Your task to perform on an android device: What's the weather? Image 0: 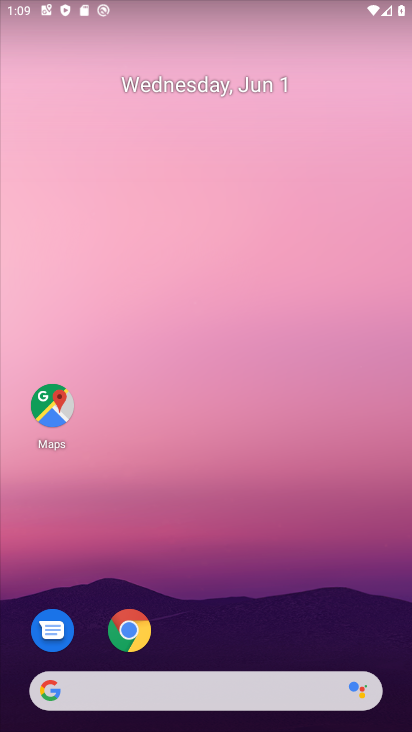
Step 0: press home button
Your task to perform on an android device: What's the weather? Image 1: 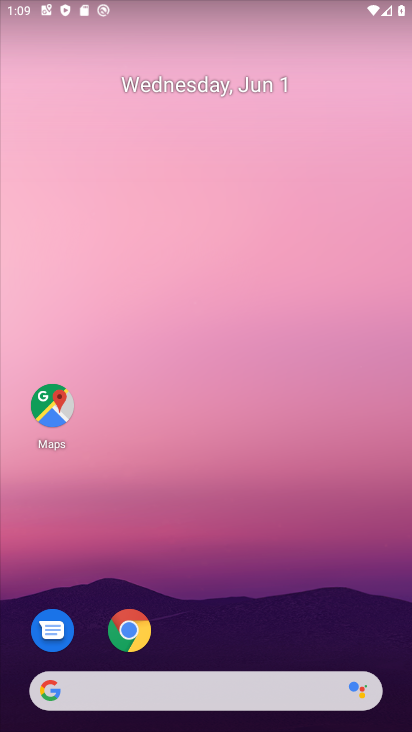
Step 1: click (56, 692)
Your task to perform on an android device: What's the weather? Image 2: 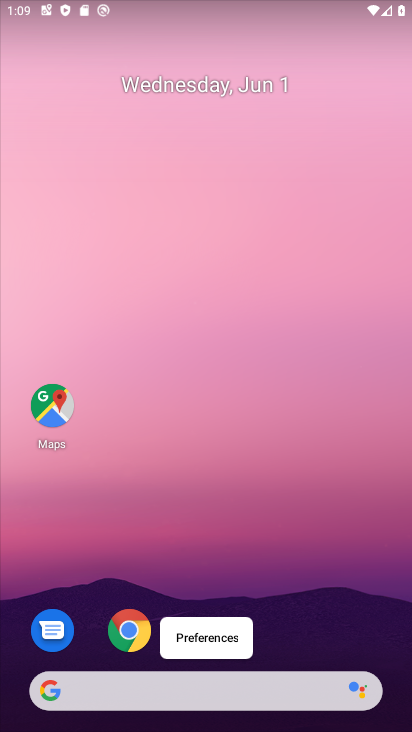
Step 2: click (51, 698)
Your task to perform on an android device: What's the weather? Image 3: 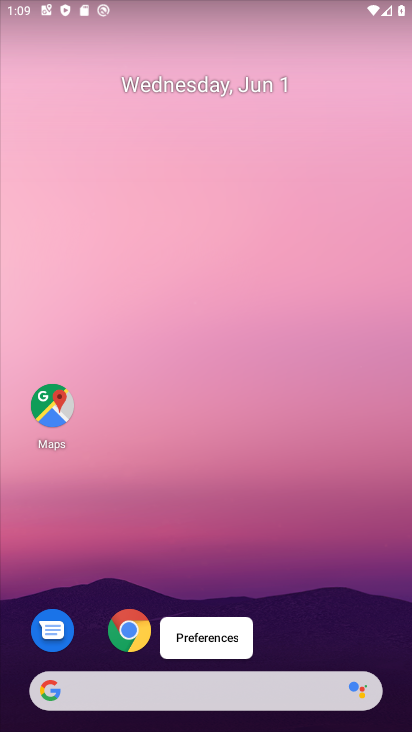
Step 3: click (54, 694)
Your task to perform on an android device: What's the weather? Image 4: 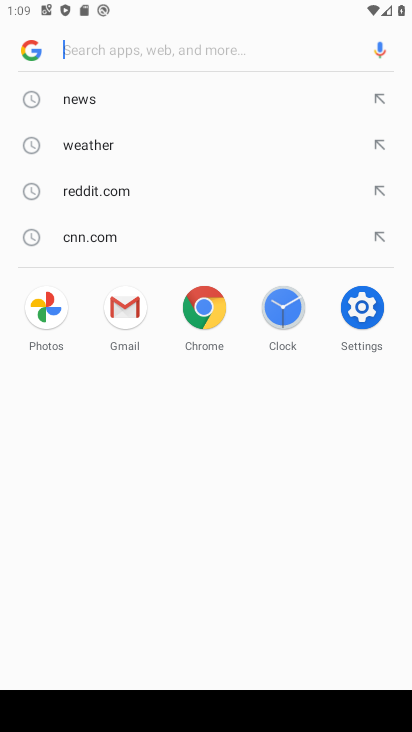
Step 4: click (86, 144)
Your task to perform on an android device: What's the weather? Image 5: 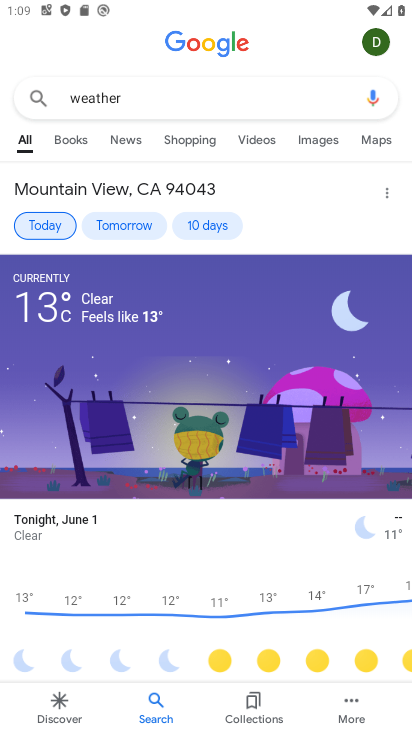
Step 5: task complete